Your task to perform on an android device: Search for "sony triple a" on target.com, select the first entry, and add it to the cart. Image 0: 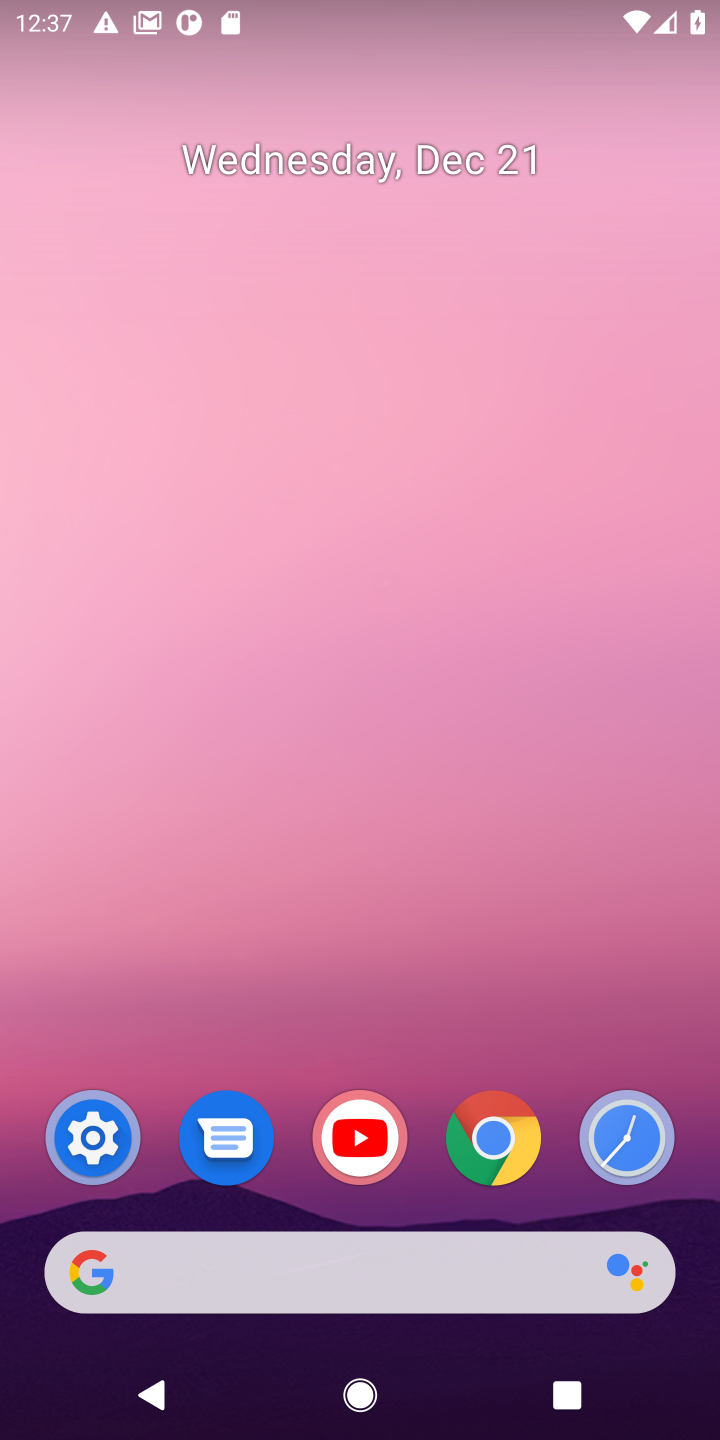
Step 0: click (413, 1256)
Your task to perform on an android device: Search for "sony triple a" on target.com, select the first entry, and add it to the cart. Image 1: 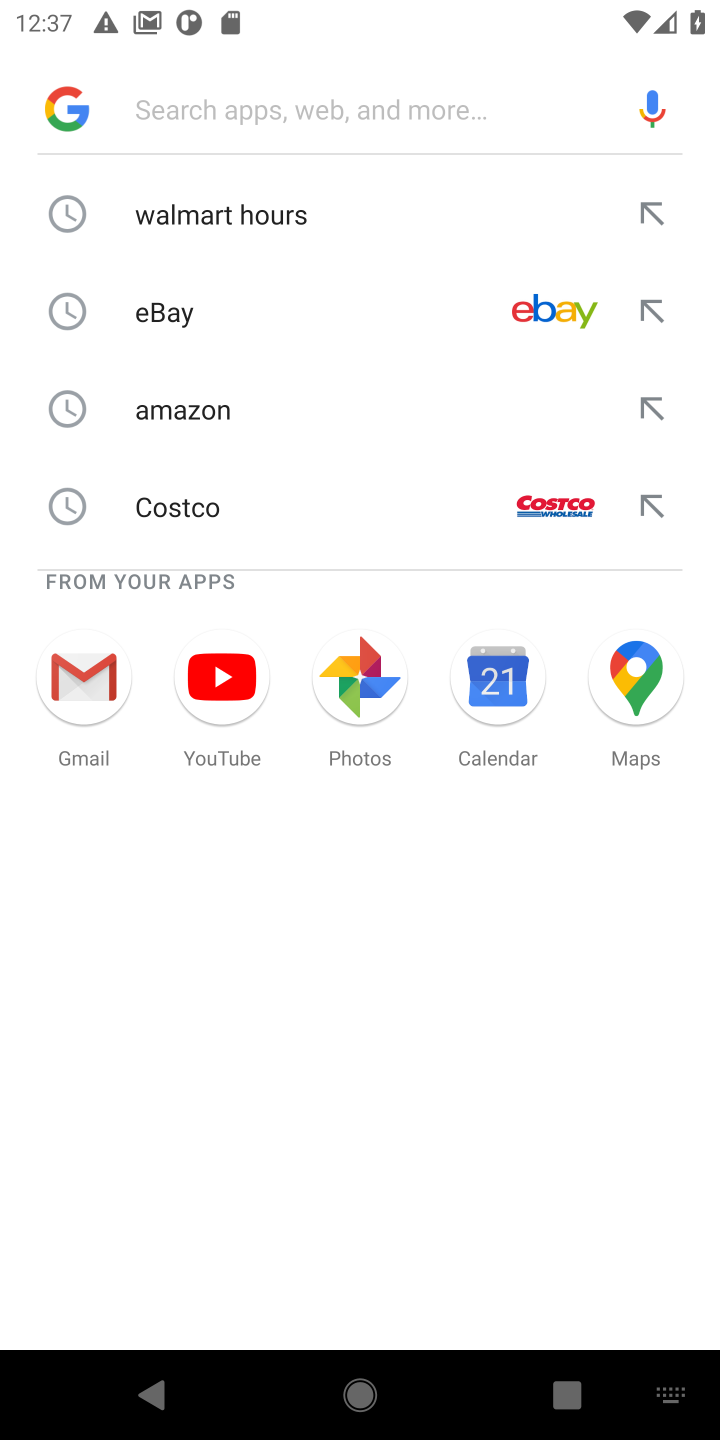
Step 1: type "target"
Your task to perform on an android device: Search for "sony triple a" on target.com, select the first entry, and add it to the cart. Image 2: 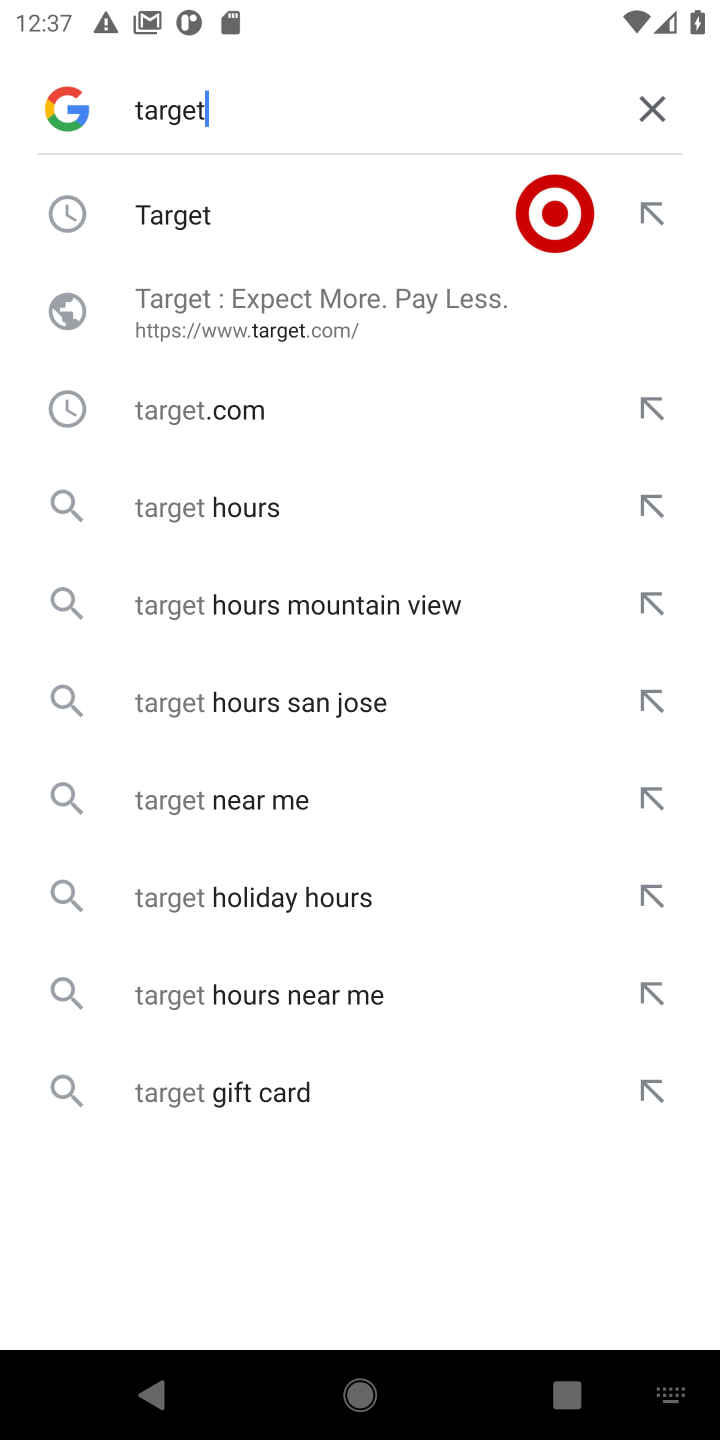
Step 2: click (232, 201)
Your task to perform on an android device: Search for "sony triple a" on target.com, select the first entry, and add it to the cart. Image 3: 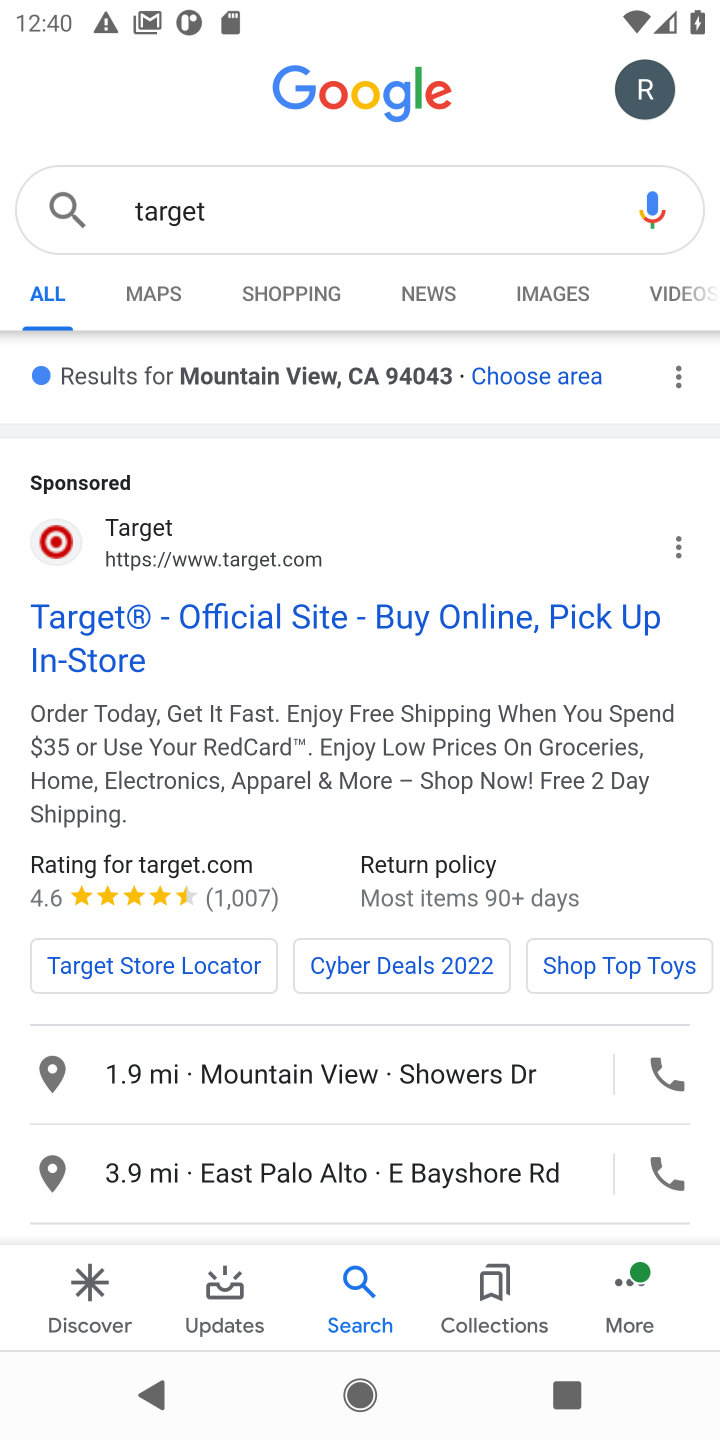
Step 3: click (446, 626)
Your task to perform on an android device: Search for "sony triple a" on target.com, select the first entry, and add it to the cart. Image 4: 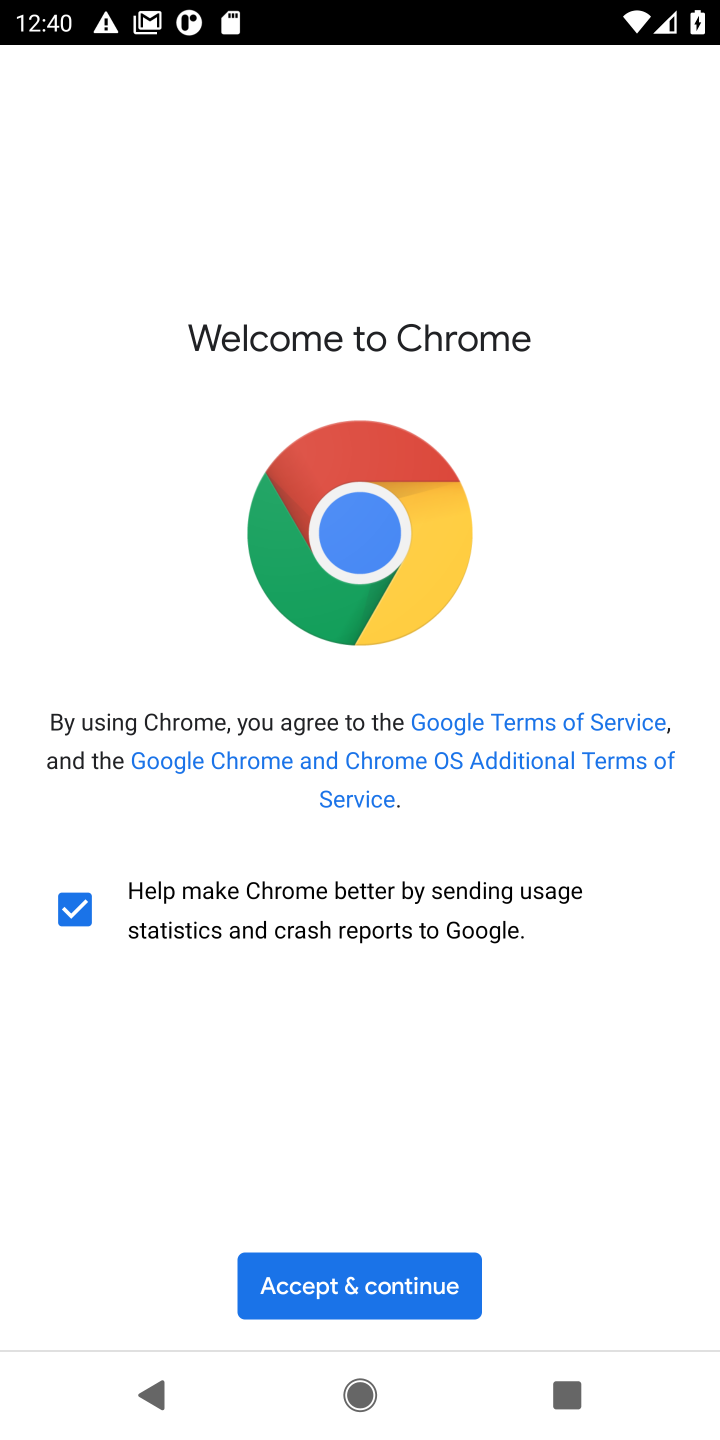
Step 4: click (353, 1303)
Your task to perform on an android device: Search for "sony triple a" on target.com, select the first entry, and add it to the cart. Image 5: 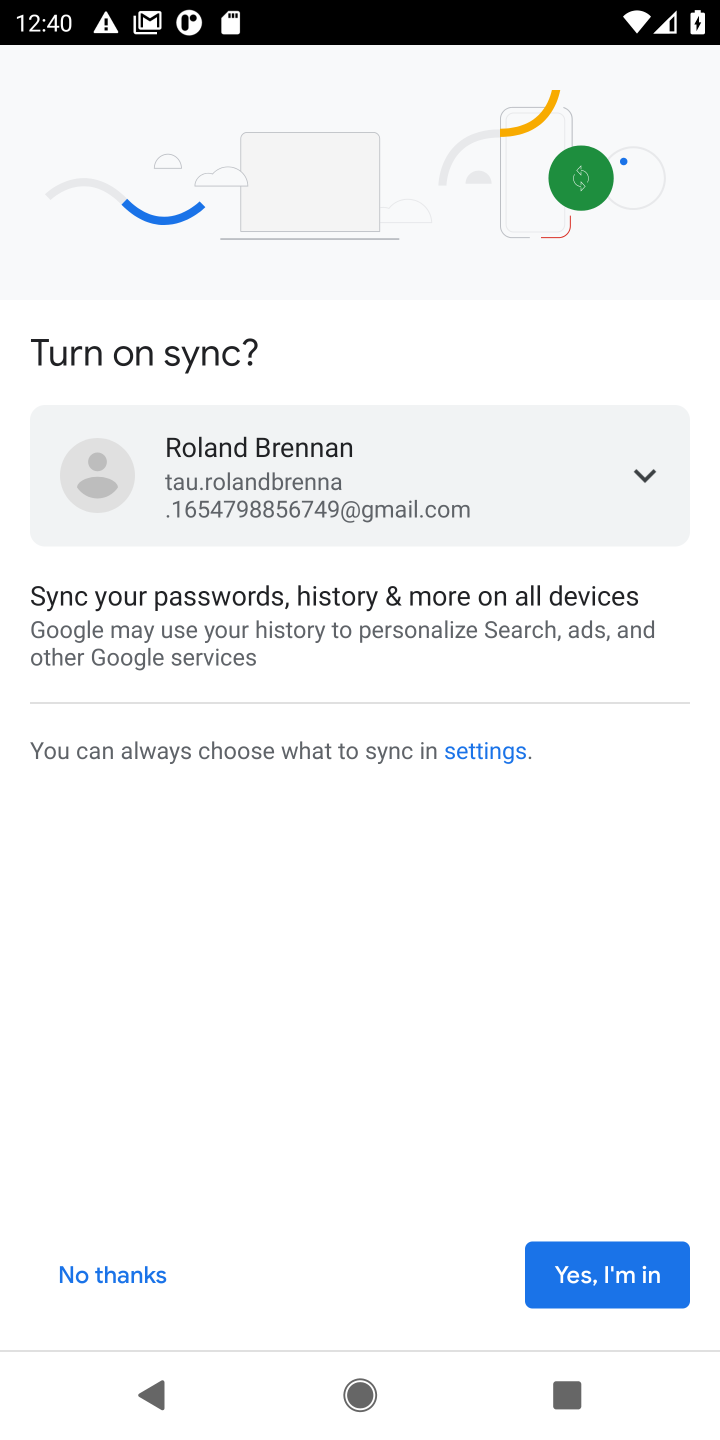
Step 5: click (583, 1296)
Your task to perform on an android device: Search for "sony triple a" on target.com, select the first entry, and add it to the cart. Image 6: 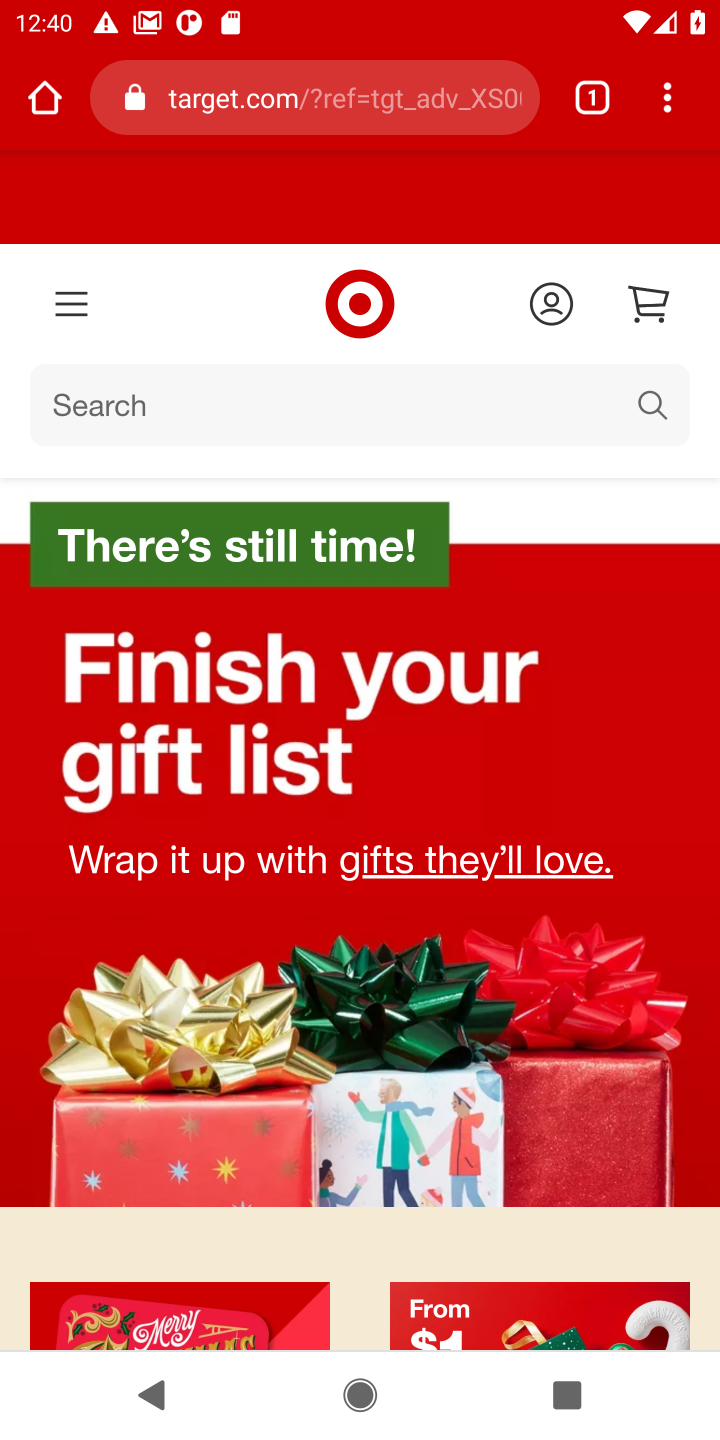
Step 6: click (425, 421)
Your task to perform on an android device: Search for "sony triple a" on target.com, select the first entry, and add it to the cart. Image 7: 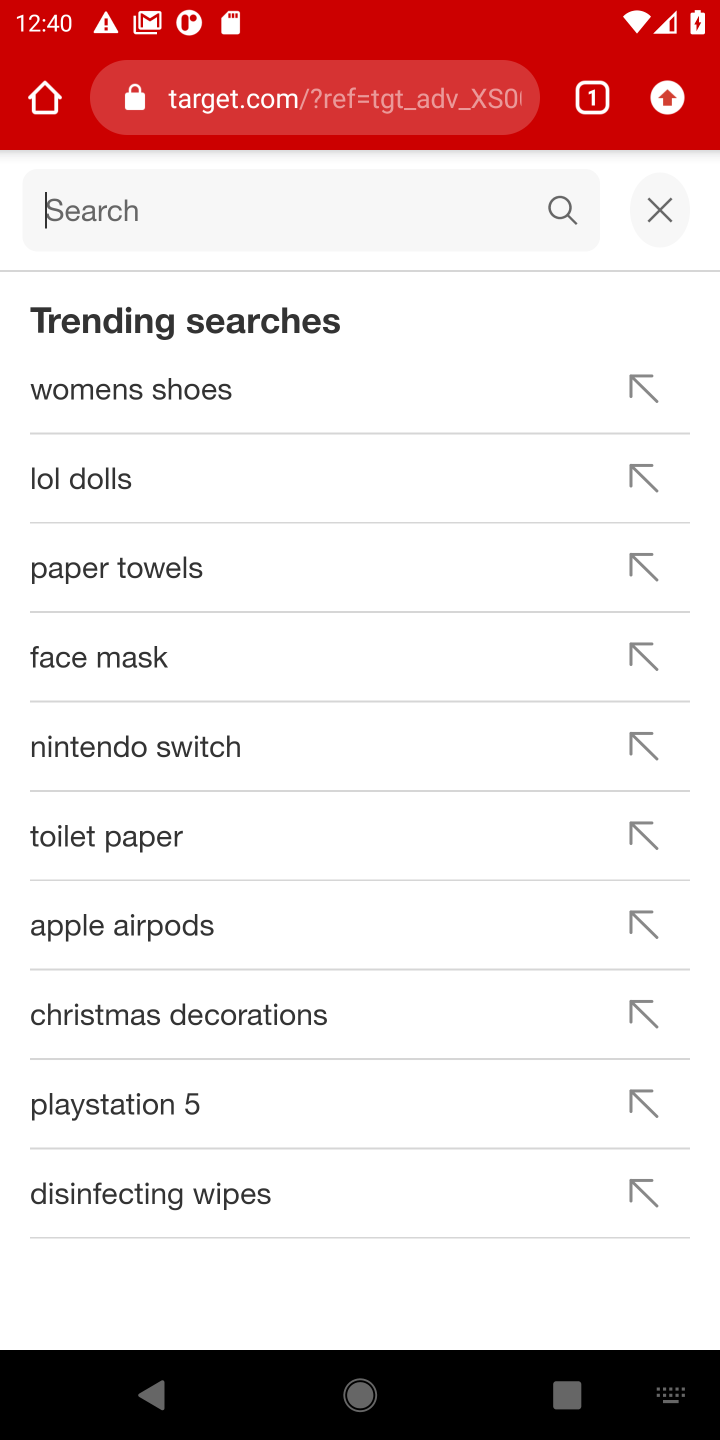
Step 7: type "sony triple a"
Your task to perform on an android device: Search for "sony triple a" on target.com, select the first entry, and add it to the cart. Image 8: 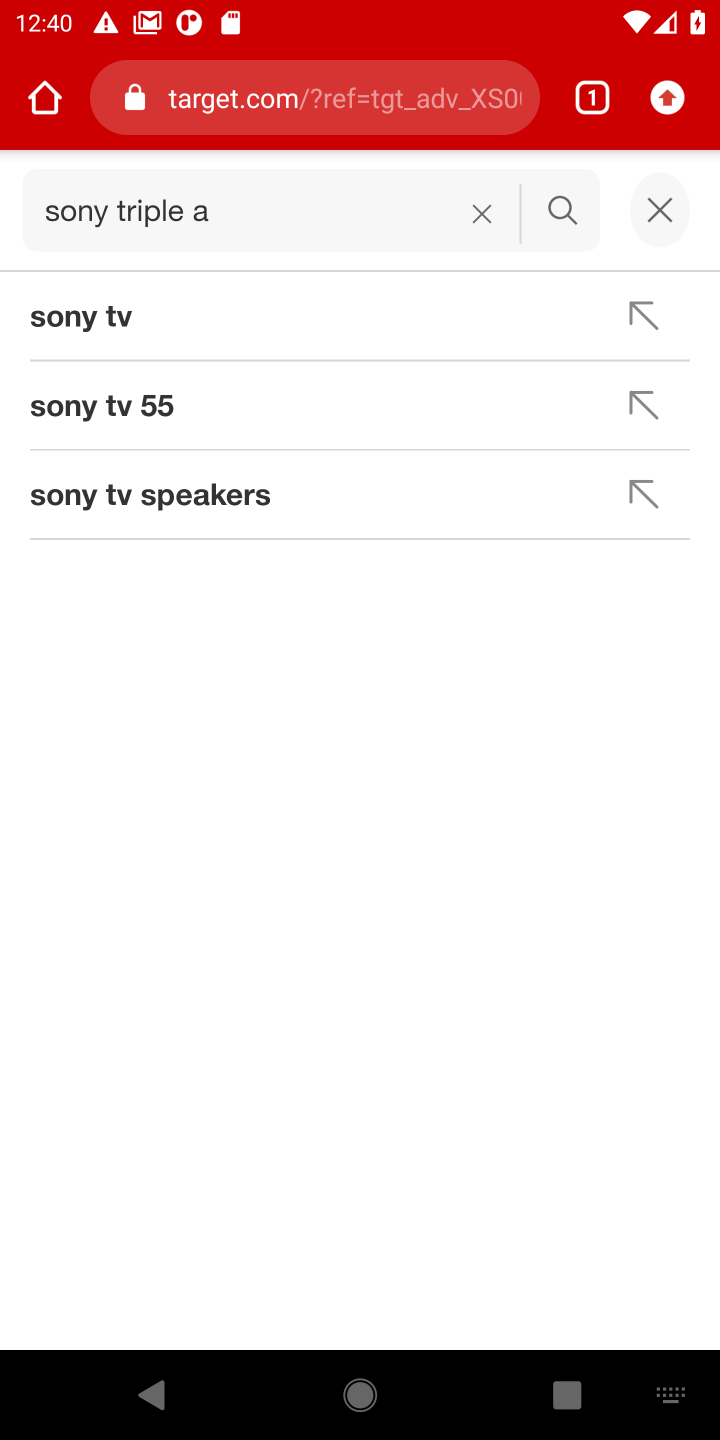
Step 8: click (545, 228)
Your task to perform on an android device: Search for "sony triple a" on target.com, select the first entry, and add it to the cart. Image 9: 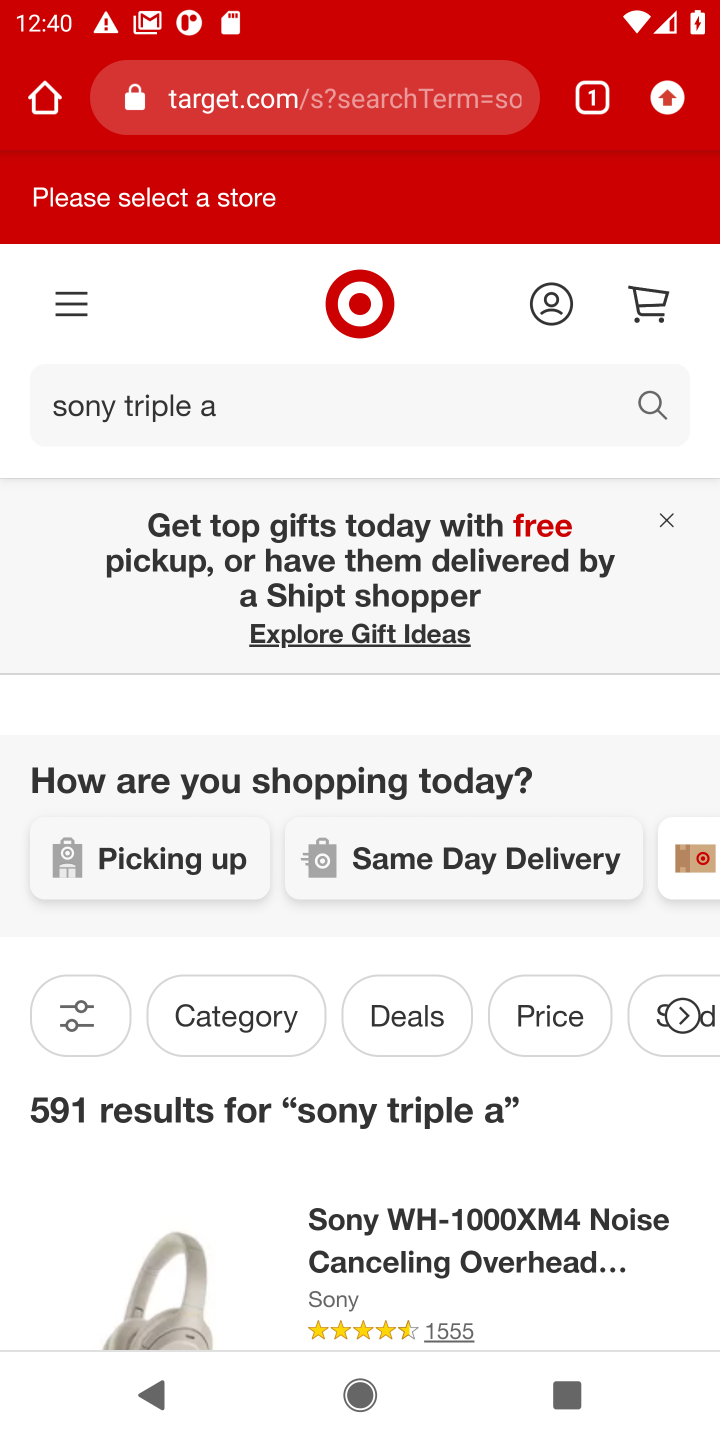
Step 9: click (472, 1279)
Your task to perform on an android device: Search for "sony triple a" on target.com, select the first entry, and add it to the cart. Image 10: 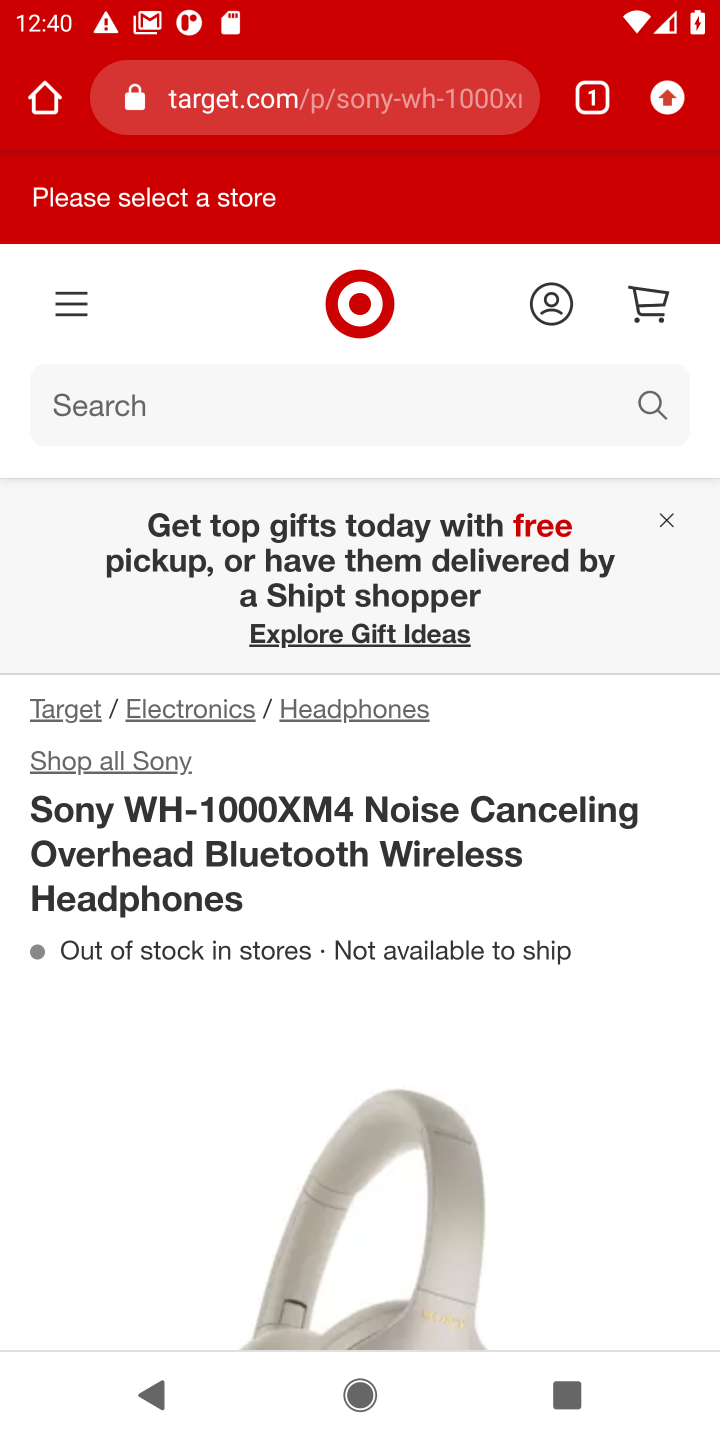
Step 10: task complete